Your task to perform on an android device: What's on my calendar tomorrow? Image 0: 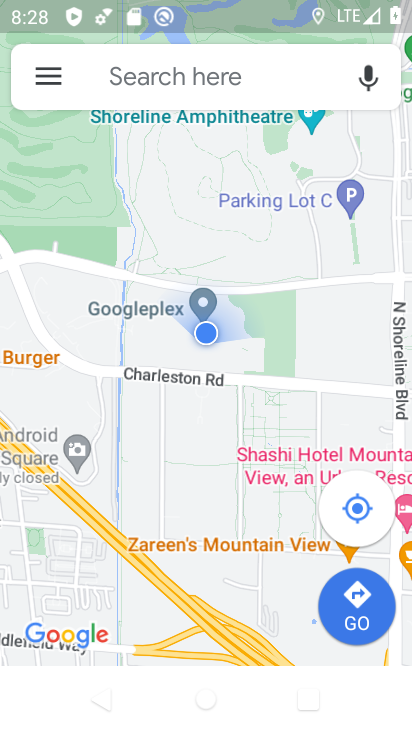
Step 0: press back button
Your task to perform on an android device: What's on my calendar tomorrow? Image 1: 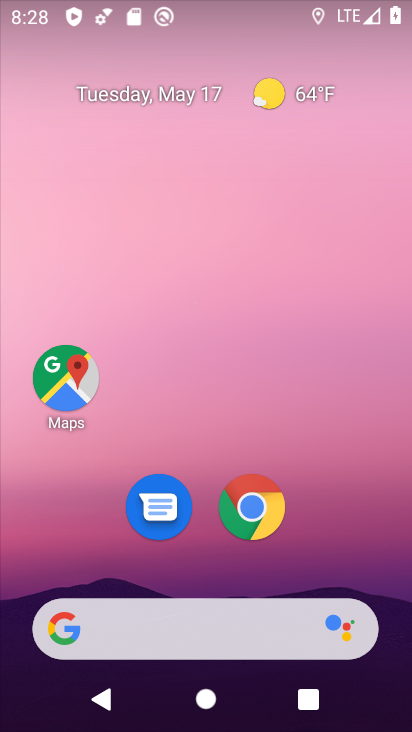
Step 1: drag from (311, 486) to (249, 48)
Your task to perform on an android device: What's on my calendar tomorrow? Image 2: 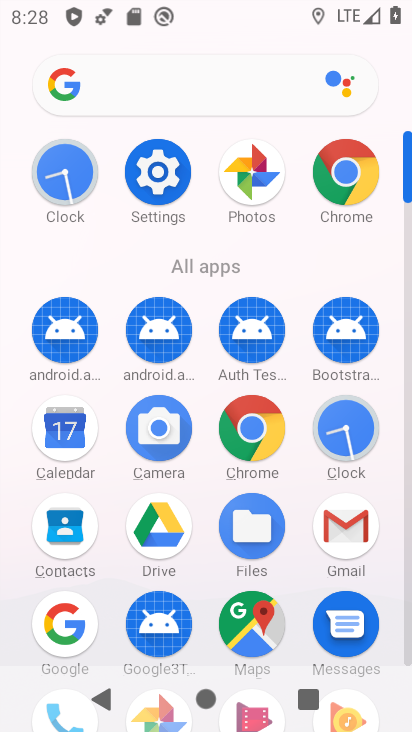
Step 2: click (65, 433)
Your task to perform on an android device: What's on my calendar tomorrow? Image 3: 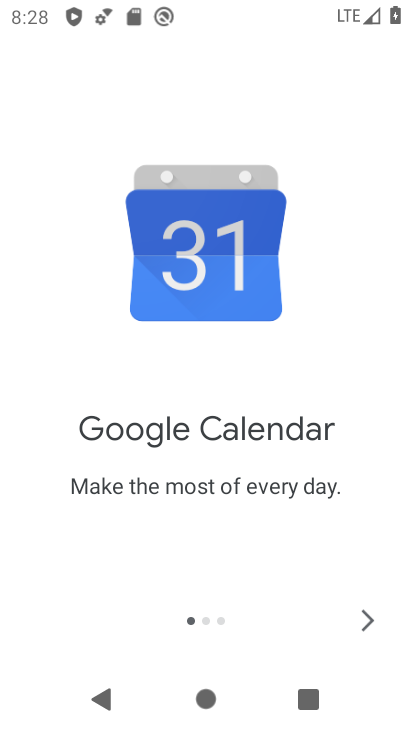
Step 3: click (367, 616)
Your task to perform on an android device: What's on my calendar tomorrow? Image 4: 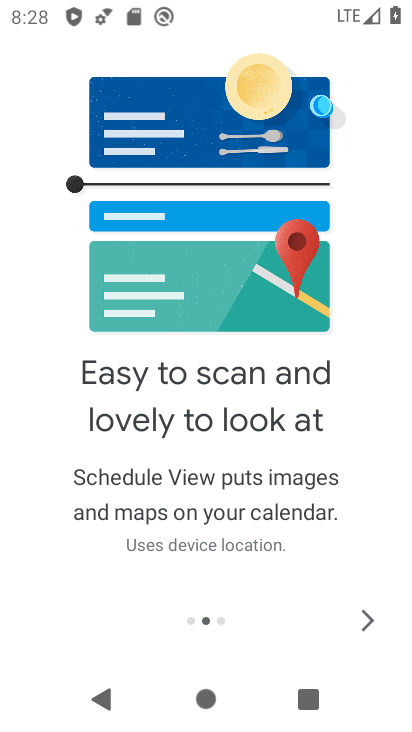
Step 4: click (367, 615)
Your task to perform on an android device: What's on my calendar tomorrow? Image 5: 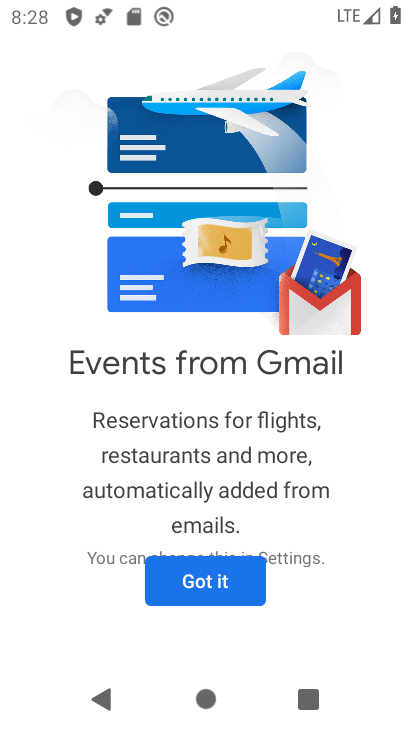
Step 5: click (222, 585)
Your task to perform on an android device: What's on my calendar tomorrow? Image 6: 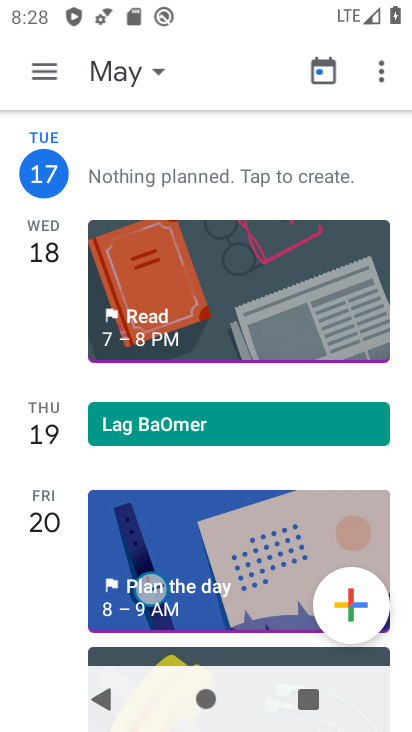
Step 6: click (163, 70)
Your task to perform on an android device: What's on my calendar tomorrow? Image 7: 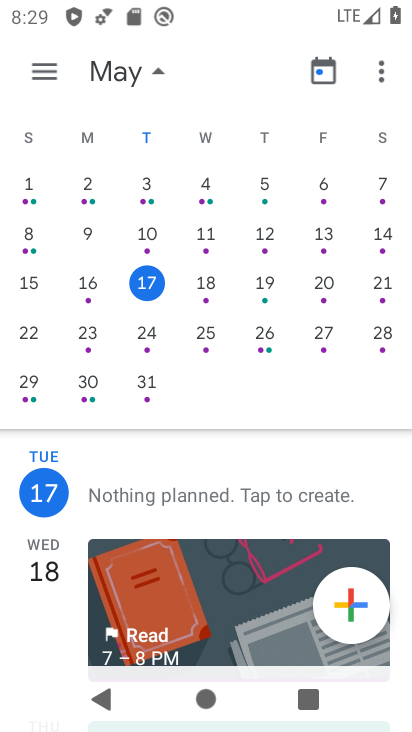
Step 7: click (206, 278)
Your task to perform on an android device: What's on my calendar tomorrow? Image 8: 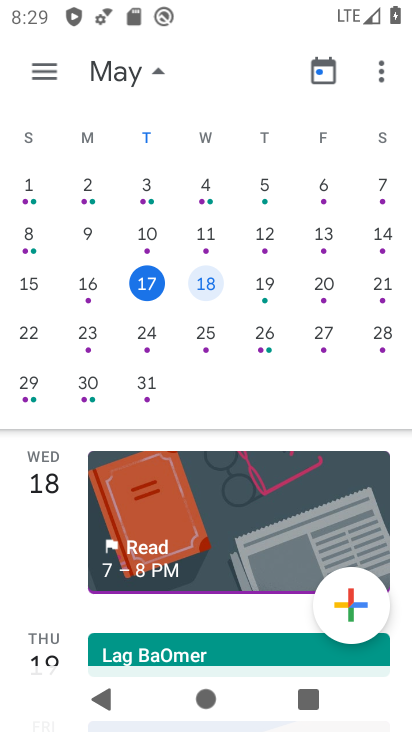
Step 8: click (46, 69)
Your task to perform on an android device: What's on my calendar tomorrow? Image 9: 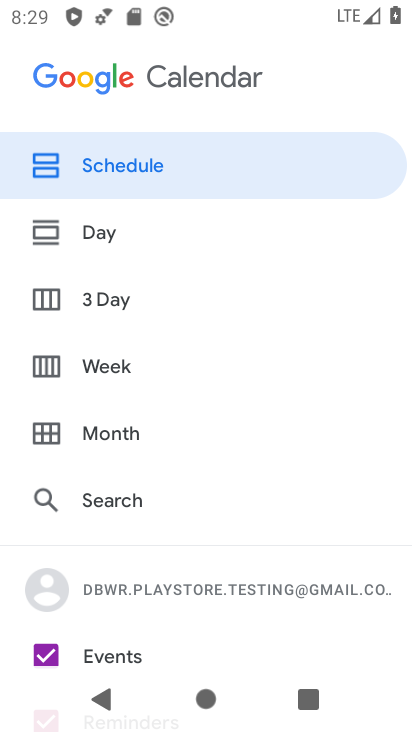
Step 9: click (125, 182)
Your task to perform on an android device: What's on my calendar tomorrow? Image 10: 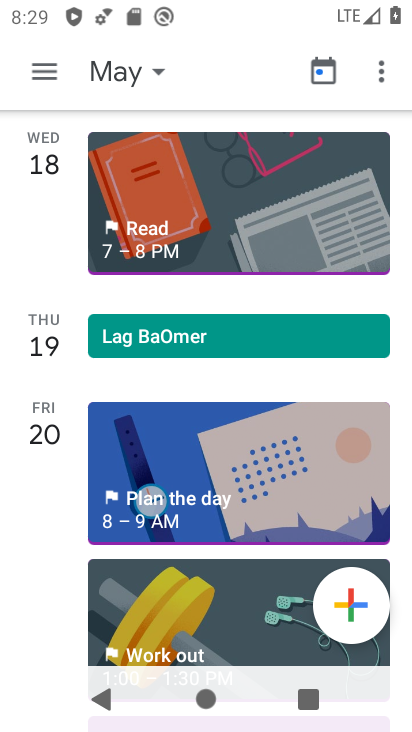
Step 10: click (194, 241)
Your task to perform on an android device: What's on my calendar tomorrow? Image 11: 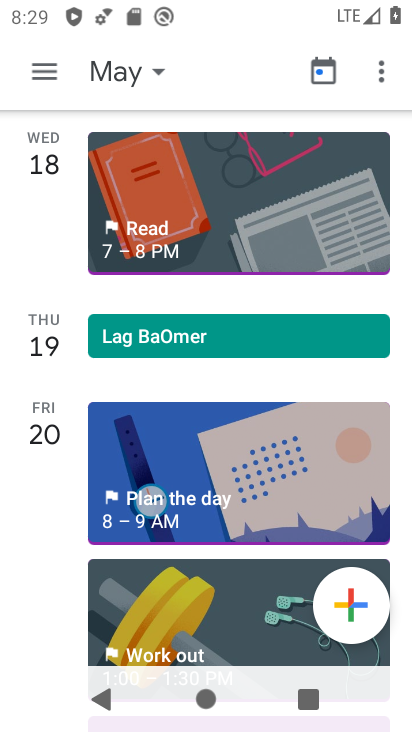
Step 11: click (239, 238)
Your task to perform on an android device: What's on my calendar tomorrow? Image 12: 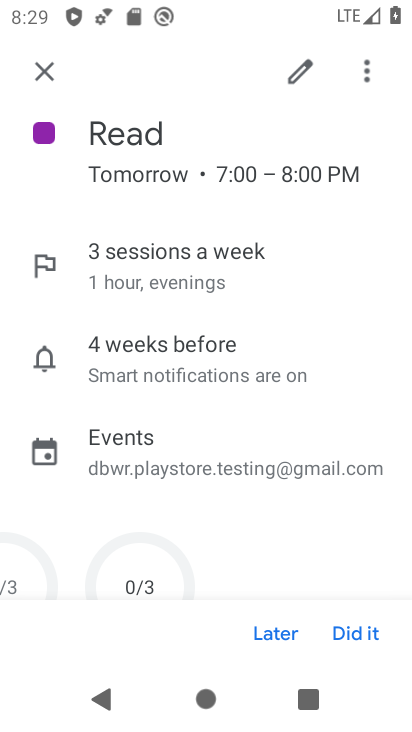
Step 12: task complete